Your task to perform on an android device: clear history in the chrome app Image 0: 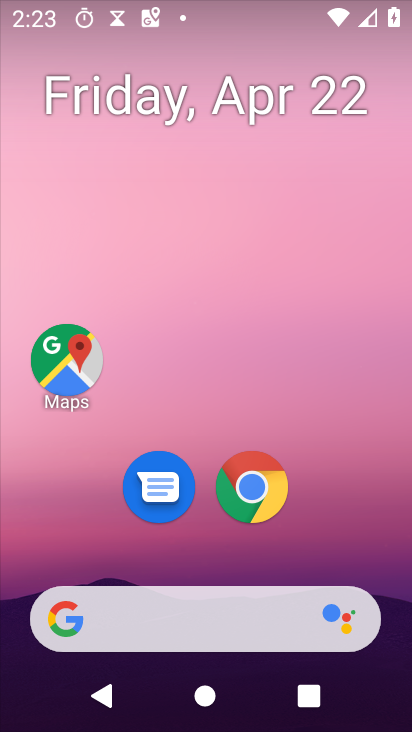
Step 0: drag from (194, 628) to (310, 164)
Your task to perform on an android device: clear history in the chrome app Image 1: 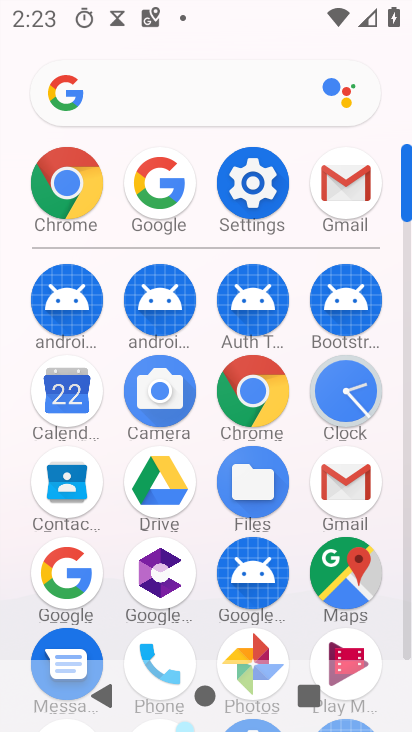
Step 1: click (72, 201)
Your task to perform on an android device: clear history in the chrome app Image 2: 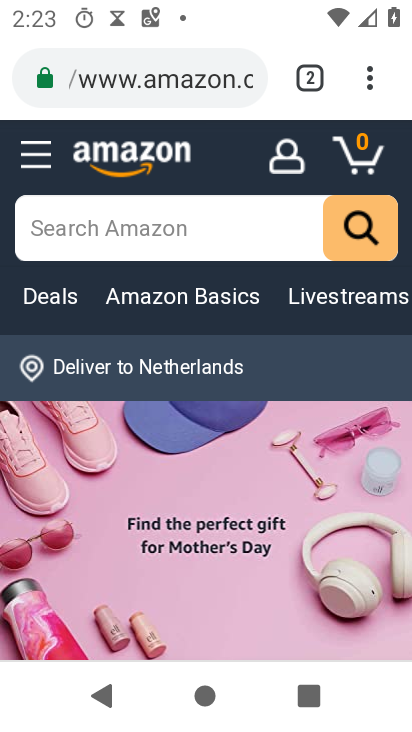
Step 2: drag from (371, 81) to (84, 444)
Your task to perform on an android device: clear history in the chrome app Image 3: 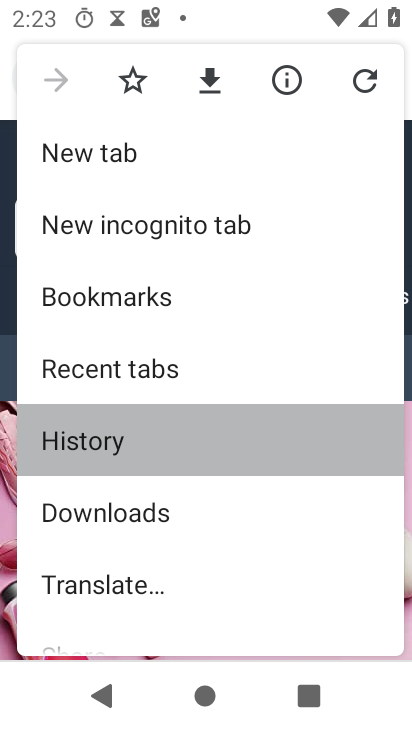
Step 3: click (84, 444)
Your task to perform on an android device: clear history in the chrome app Image 4: 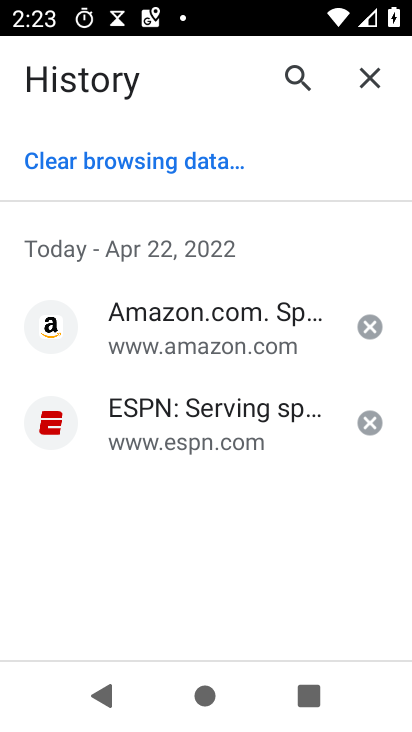
Step 4: click (141, 152)
Your task to perform on an android device: clear history in the chrome app Image 5: 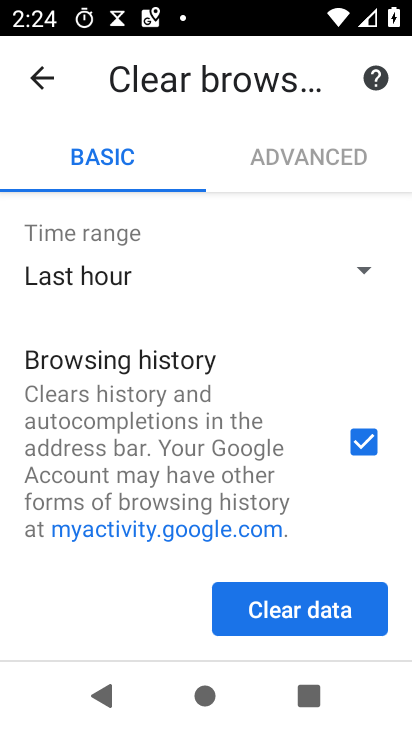
Step 5: drag from (211, 468) to (290, 264)
Your task to perform on an android device: clear history in the chrome app Image 6: 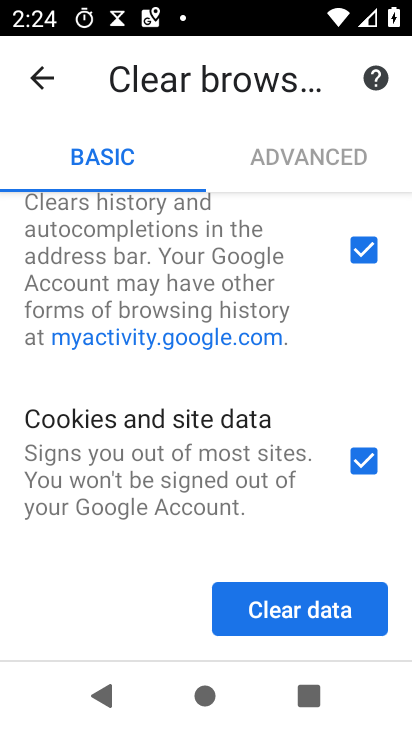
Step 6: drag from (273, 481) to (348, 166)
Your task to perform on an android device: clear history in the chrome app Image 7: 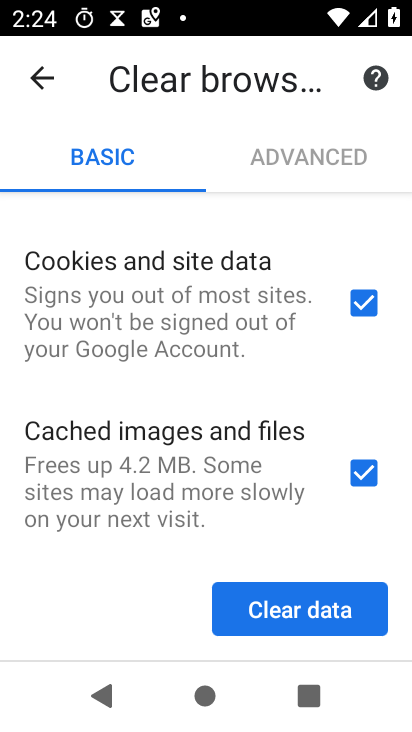
Step 7: click (338, 612)
Your task to perform on an android device: clear history in the chrome app Image 8: 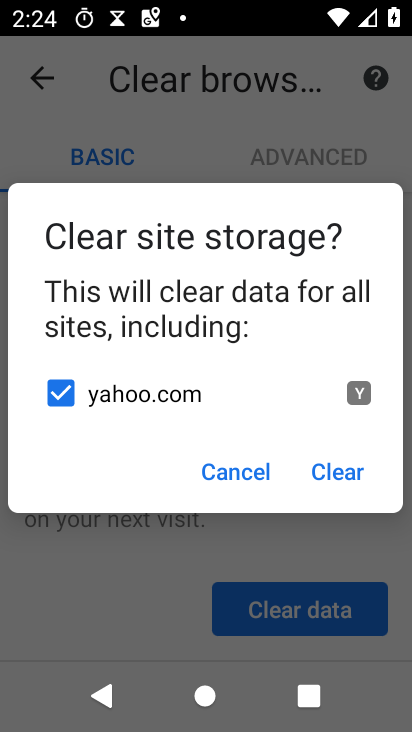
Step 8: click (335, 471)
Your task to perform on an android device: clear history in the chrome app Image 9: 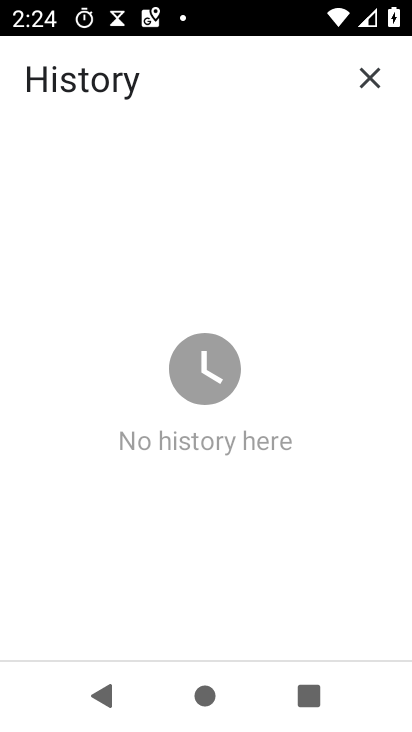
Step 9: task complete